Your task to perform on an android device: Go to Wikipedia Image 0: 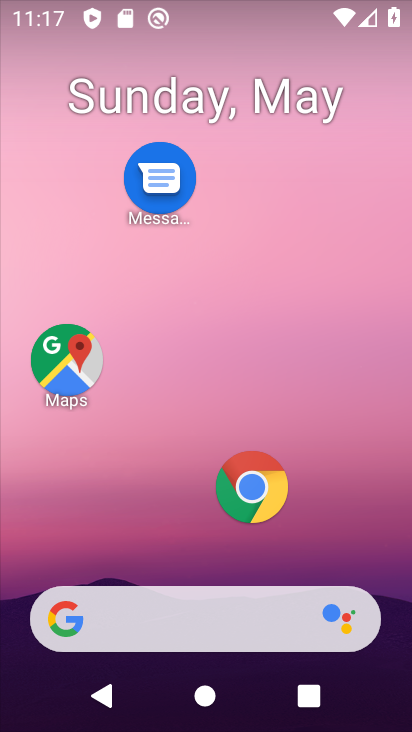
Step 0: click (248, 497)
Your task to perform on an android device: Go to Wikipedia Image 1: 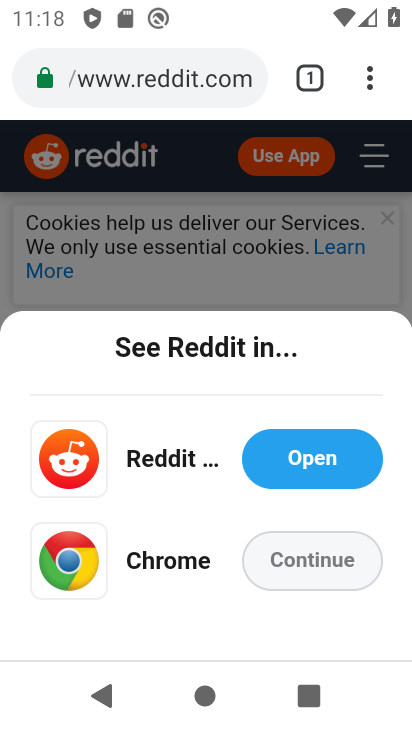
Step 1: click (146, 88)
Your task to perform on an android device: Go to Wikipedia Image 2: 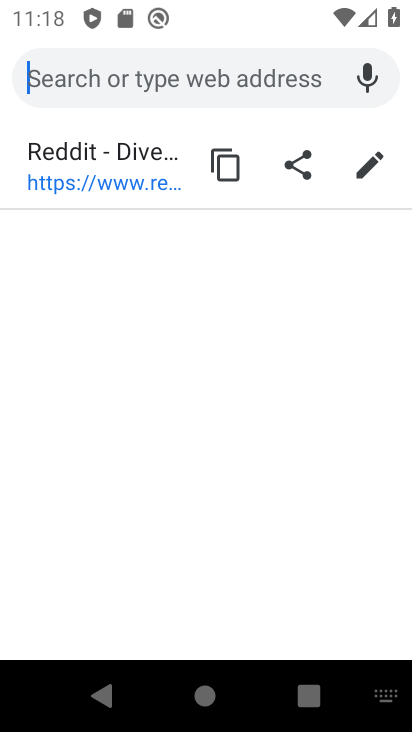
Step 2: type "wikipedia"
Your task to perform on an android device: Go to Wikipedia Image 3: 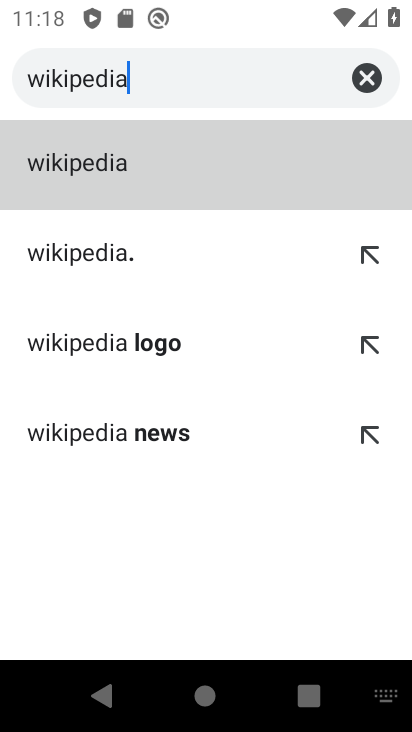
Step 3: click (90, 156)
Your task to perform on an android device: Go to Wikipedia Image 4: 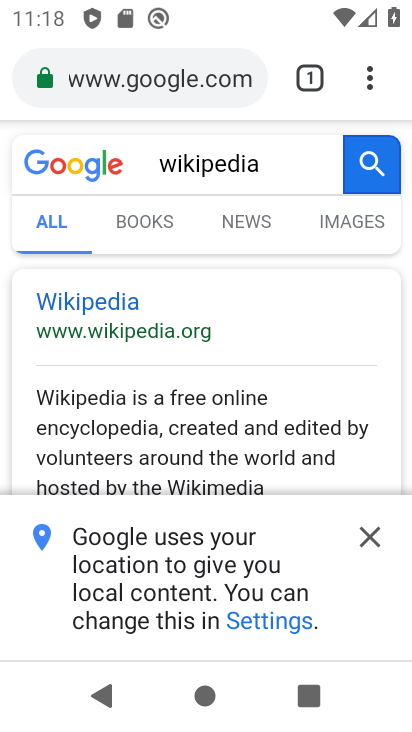
Step 4: click (78, 300)
Your task to perform on an android device: Go to Wikipedia Image 5: 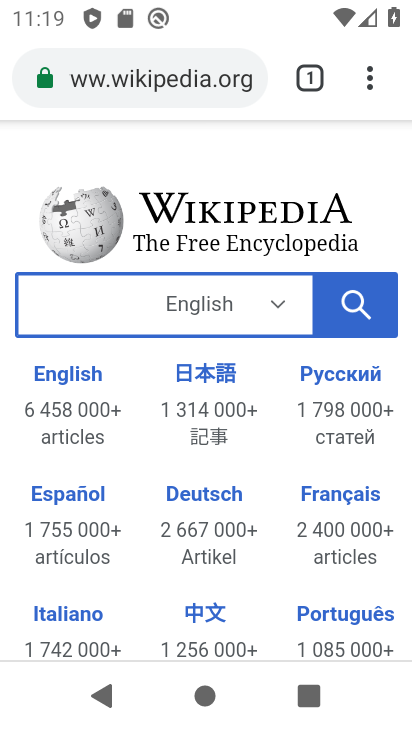
Step 5: task complete